Your task to perform on an android device: Search for the new Nintendo switch on Best Buy Image 0: 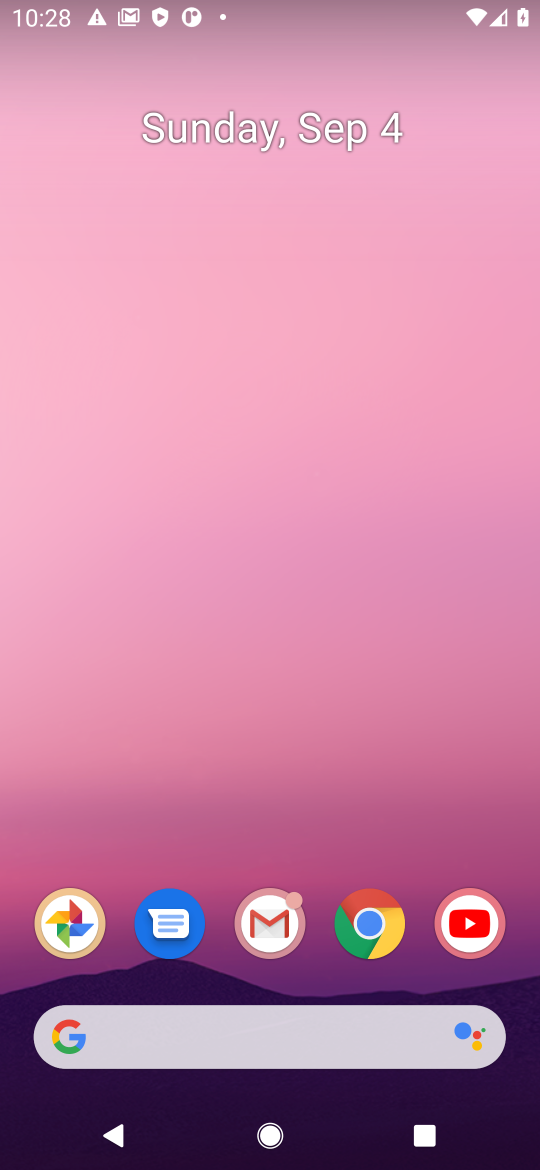
Step 0: click (306, 1032)
Your task to perform on an android device: Search for the new Nintendo switch on Best Buy Image 1: 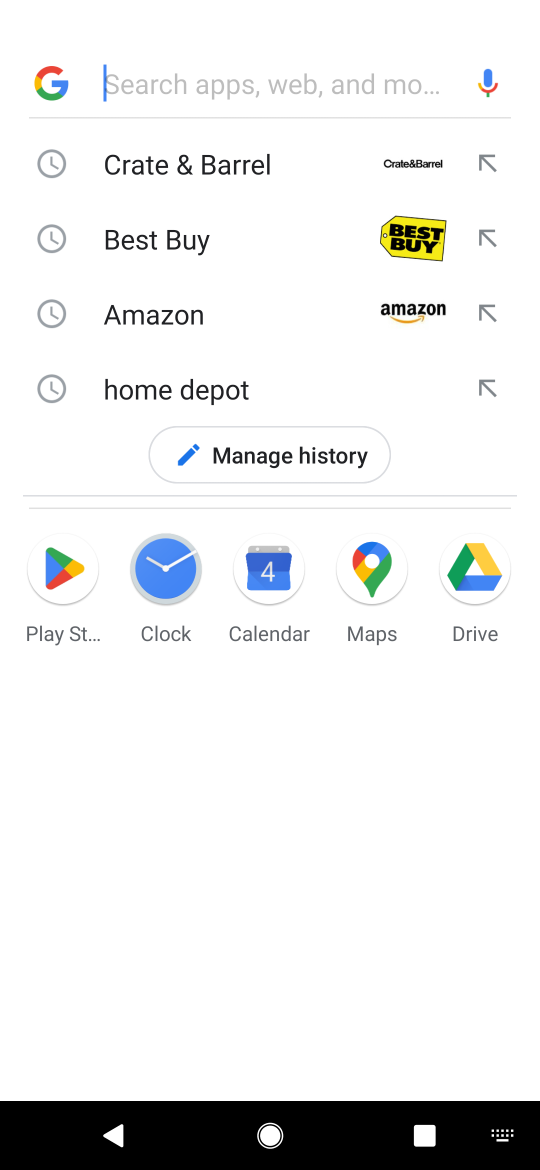
Step 1: press enter
Your task to perform on an android device: Search for the new Nintendo switch on Best Buy Image 2: 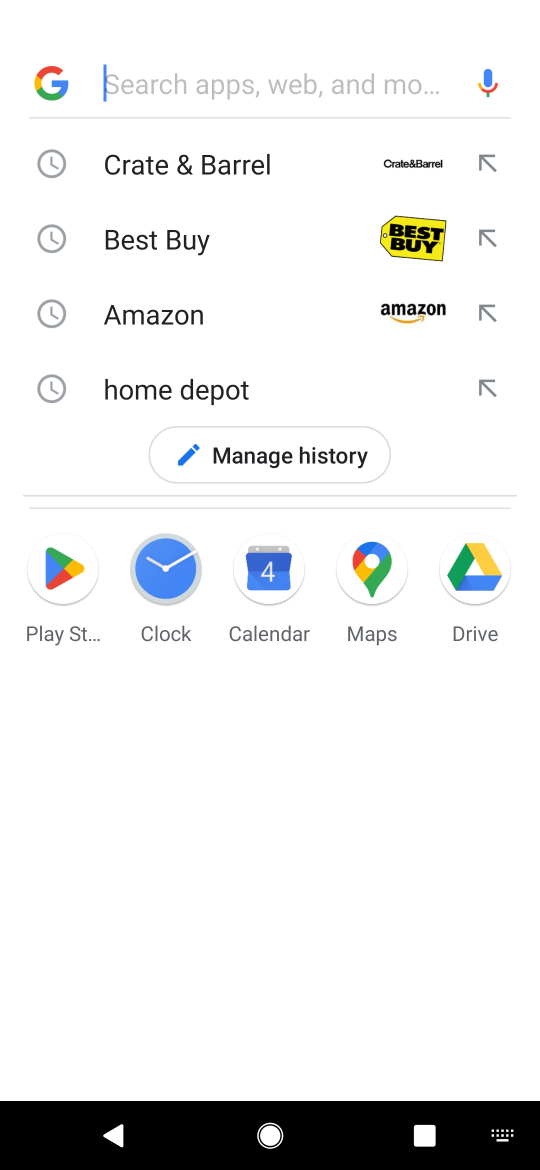
Step 2: type "best buy"
Your task to perform on an android device: Search for the new Nintendo switch on Best Buy Image 3: 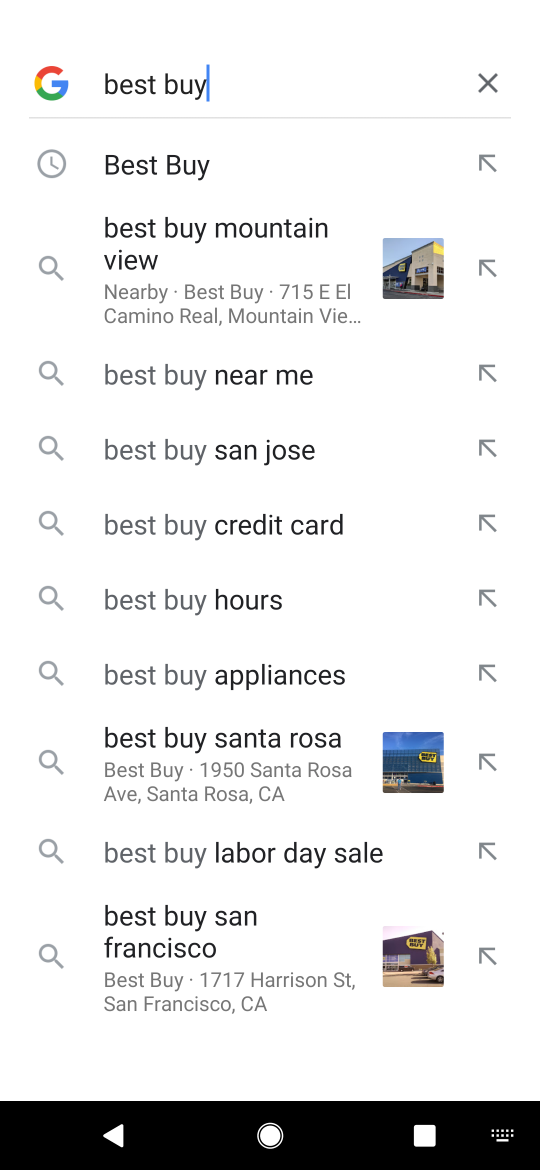
Step 3: click (196, 163)
Your task to perform on an android device: Search for the new Nintendo switch on Best Buy Image 4: 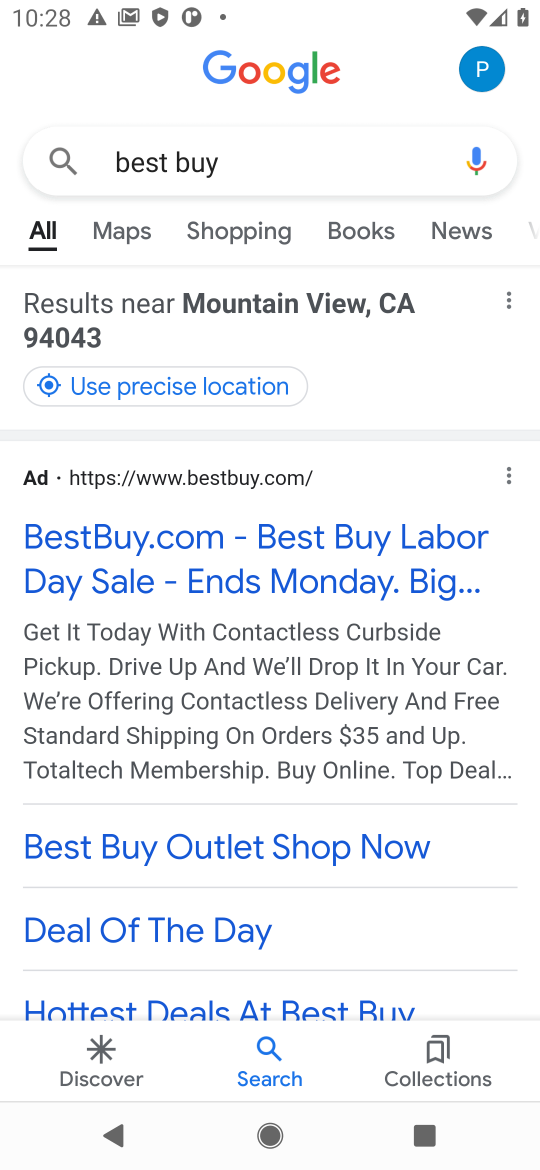
Step 4: click (223, 559)
Your task to perform on an android device: Search for the new Nintendo switch on Best Buy Image 5: 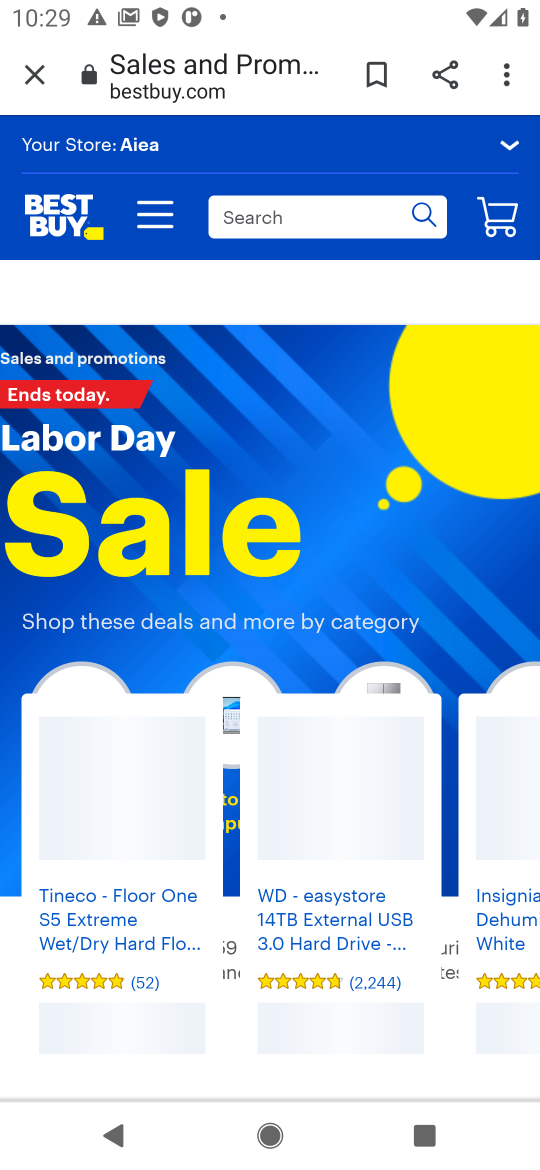
Step 5: click (270, 213)
Your task to perform on an android device: Search for the new Nintendo switch on Best Buy Image 6: 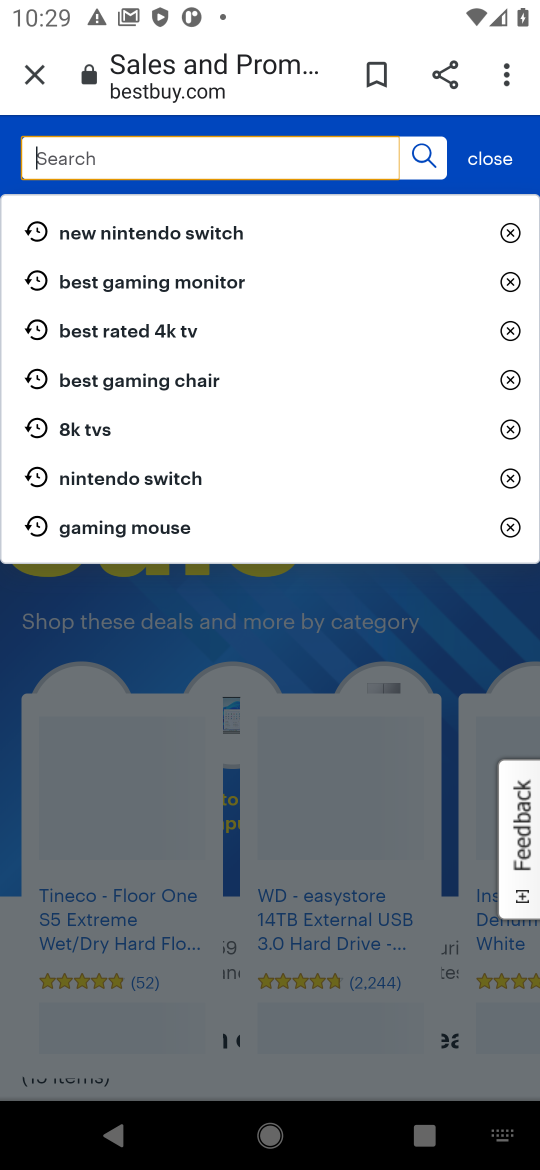
Step 6: click (178, 235)
Your task to perform on an android device: Search for the new Nintendo switch on Best Buy Image 7: 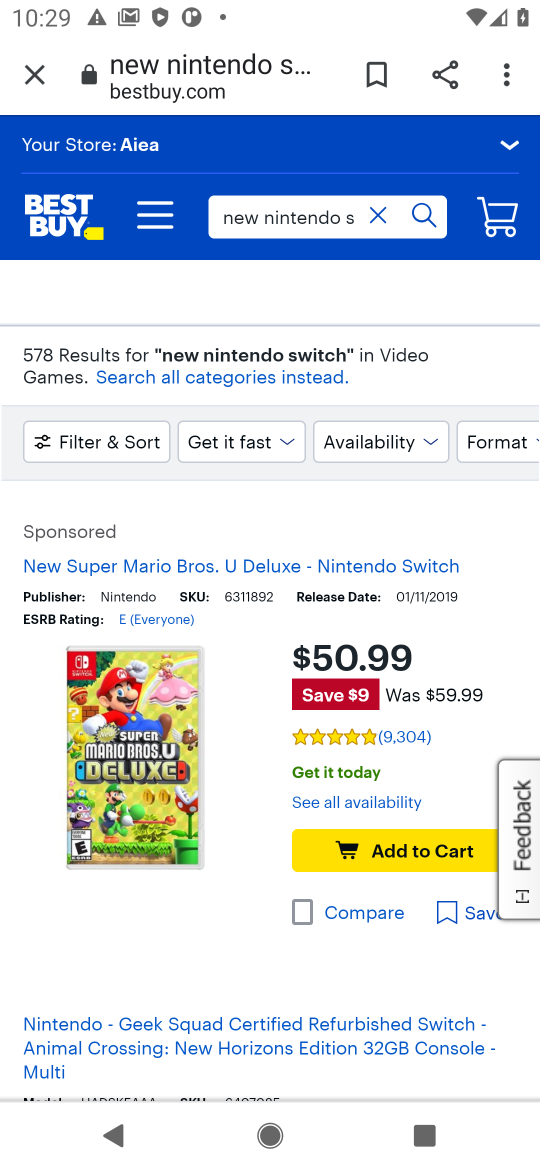
Step 7: task complete